Your task to perform on an android device: Open sound settings Image 0: 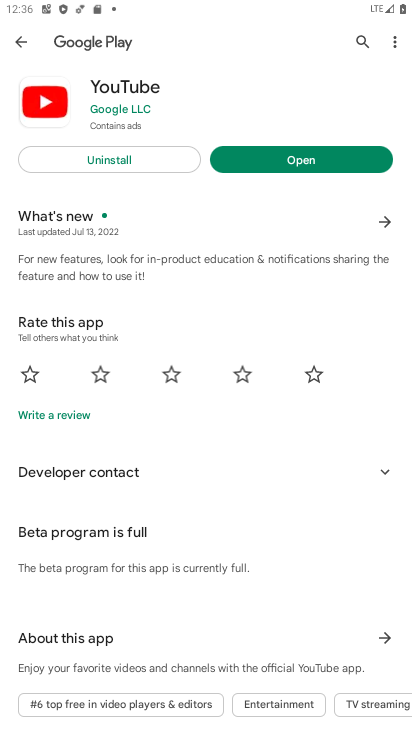
Step 0: press home button
Your task to perform on an android device: Open sound settings Image 1: 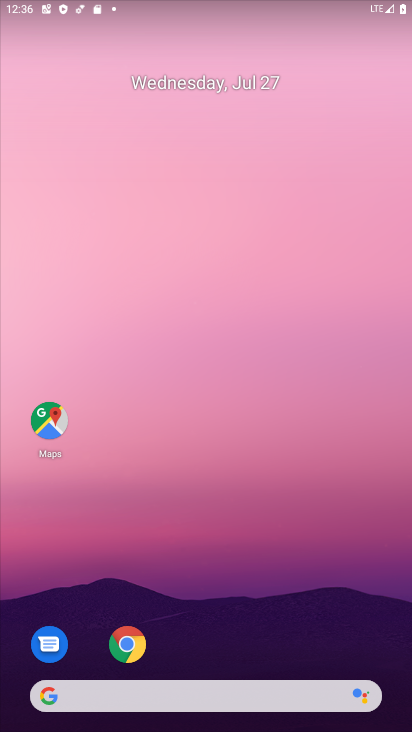
Step 1: drag from (209, 652) to (371, 42)
Your task to perform on an android device: Open sound settings Image 2: 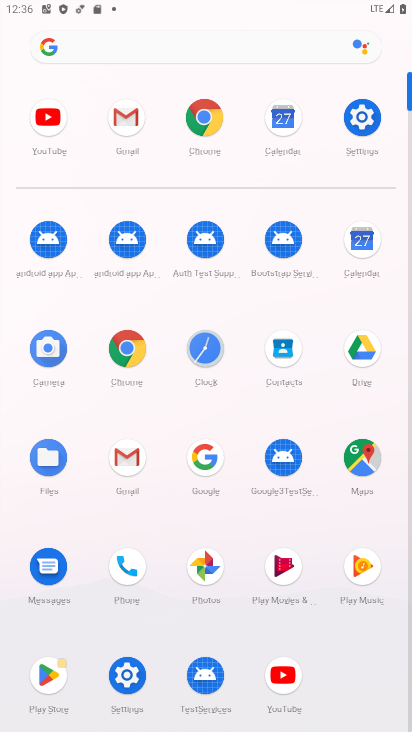
Step 2: click (126, 677)
Your task to perform on an android device: Open sound settings Image 3: 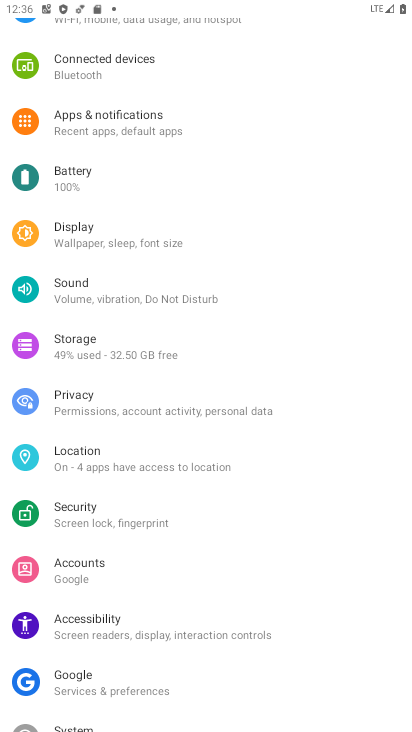
Step 3: click (106, 293)
Your task to perform on an android device: Open sound settings Image 4: 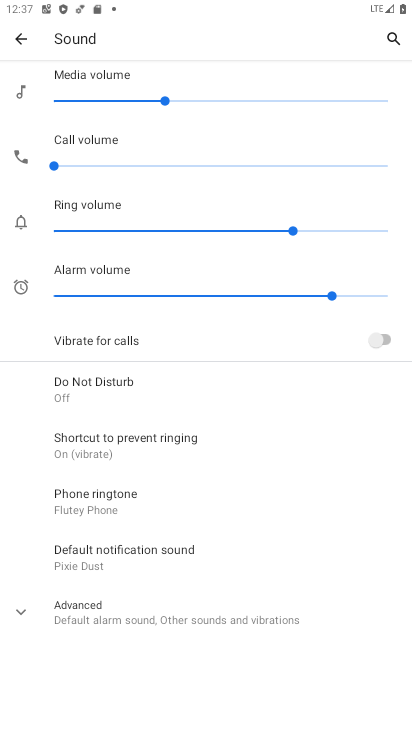
Step 4: task complete